Your task to perform on an android device: turn off airplane mode Image 0: 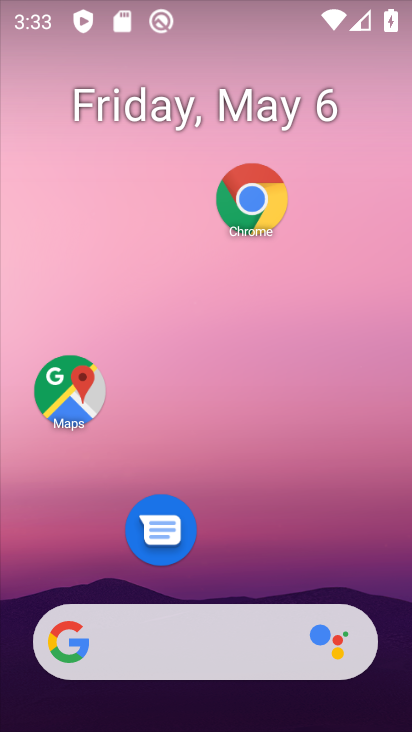
Step 0: drag from (313, 453) to (386, 59)
Your task to perform on an android device: turn off airplane mode Image 1: 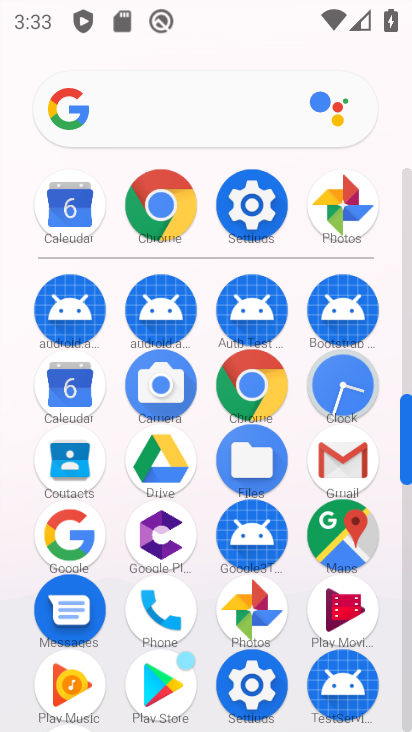
Step 1: click (269, 169)
Your task to perform on an android device: turn off airplane mode Image 2: 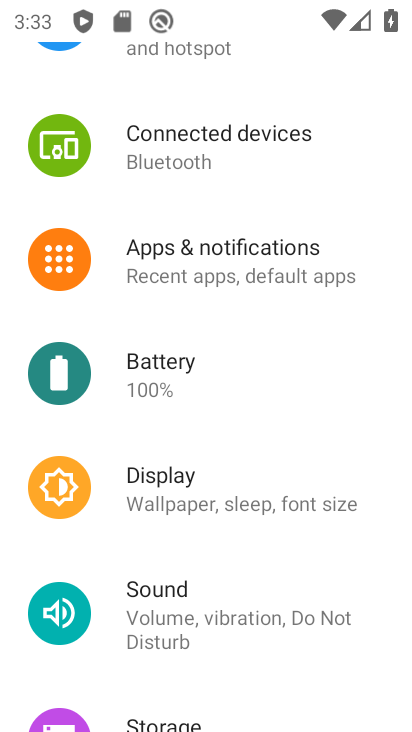
Step 2: drag from (269, 169) to (243, 366)
Your task to perform on an android device: turn off airplane mode Image 3: 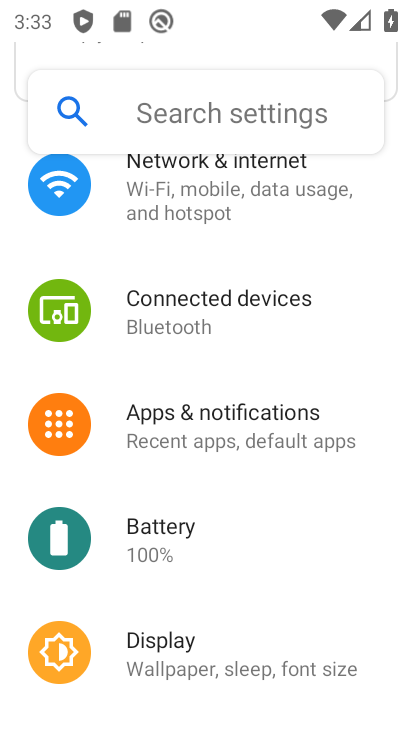
Step 3: drag from (240, 181) to (240, 341)
Your task to perform on an android device: turn off airplane mode Image 4: 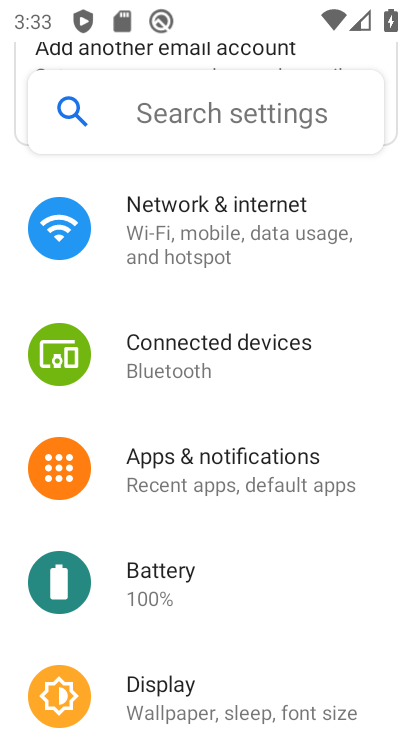
Step 4: click (230, 221)
Your task to perform on an android device: turn off airplane mode Image 5: 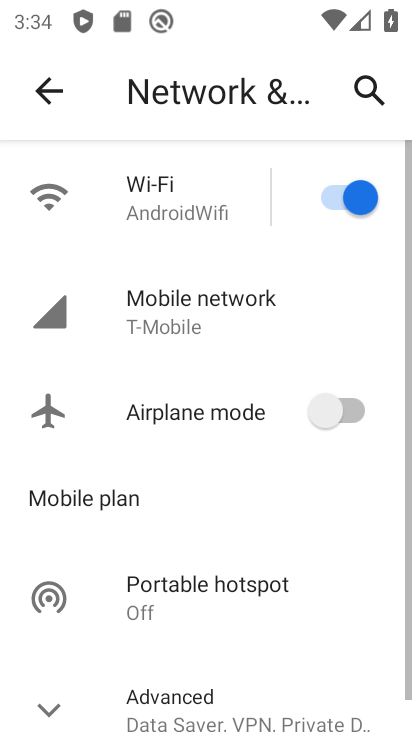
Step 5: click (230, 221)
Your task to perform on an android device: turn off airplane mode Image 6: 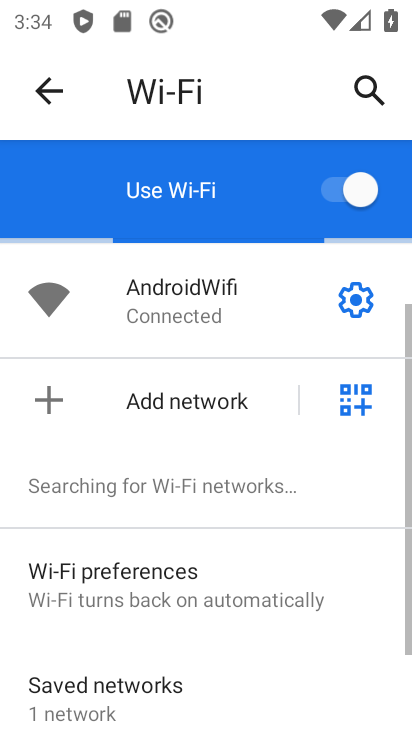
Step 6: click (47, 80)
Your task to perform on an android device: turn off airplane mode Image 7: 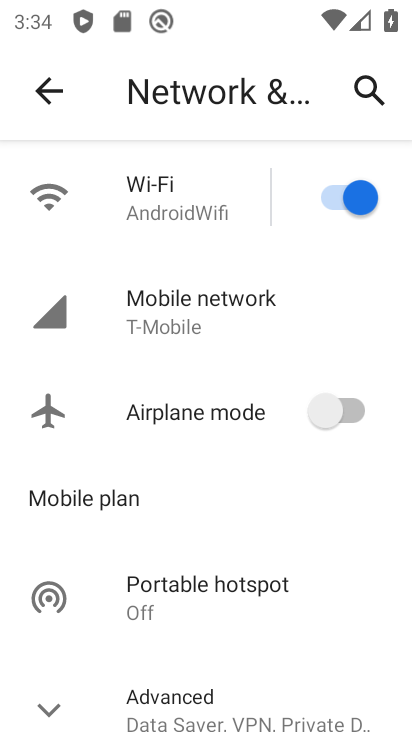
Step 7: task complete